Your task to perform on an android device: Open Chrome and go to settings Image 0: 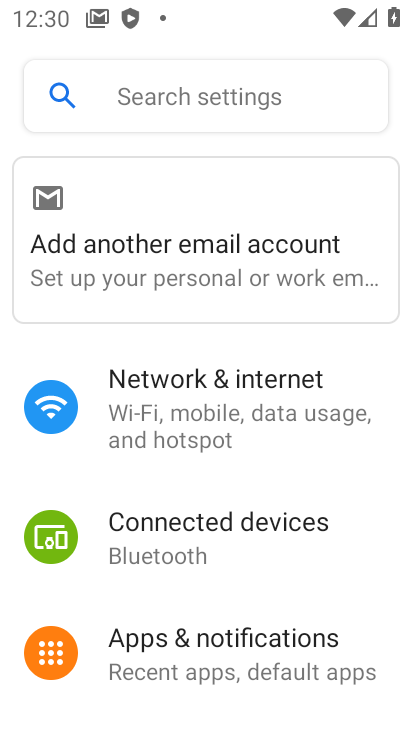
Step 0: press home button
Your task to perform on an android device: Open Chrome and go to settings Image 1: 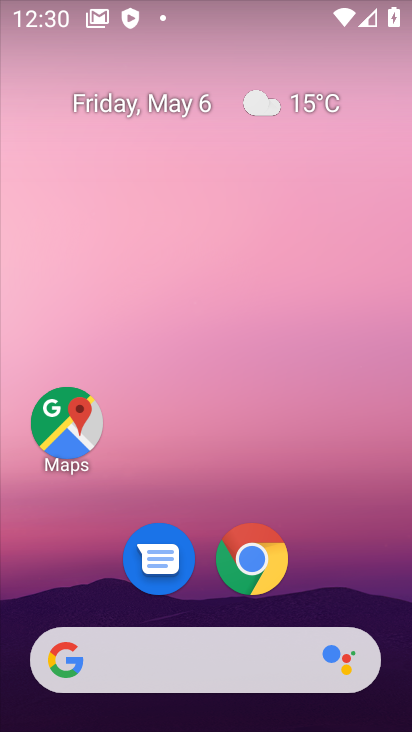
Step 1: click (259, 552)
Your task to perform on an android device: Open Chrome and go to settings Image 2: 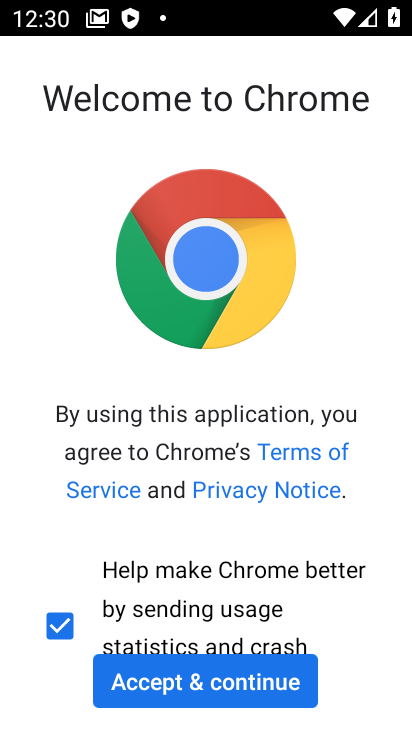
Step 2: click (151, 677)
Your task to perform on an android device: Open Chrome and go to settings Image 3: 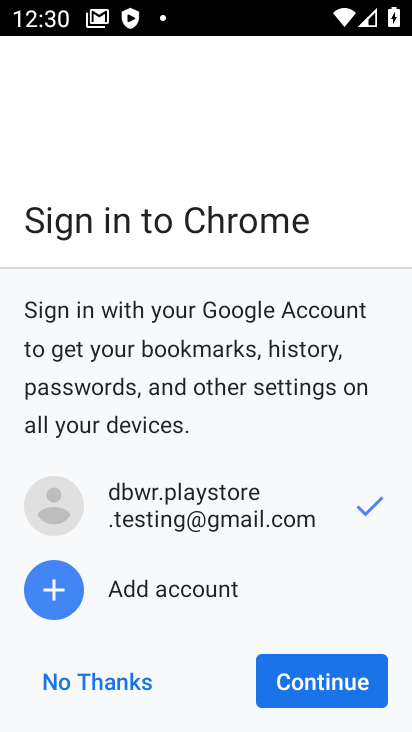
Step 3: click (327, 695)
Your task to perform on an android device: Open Chrome and go to settings Image 4: 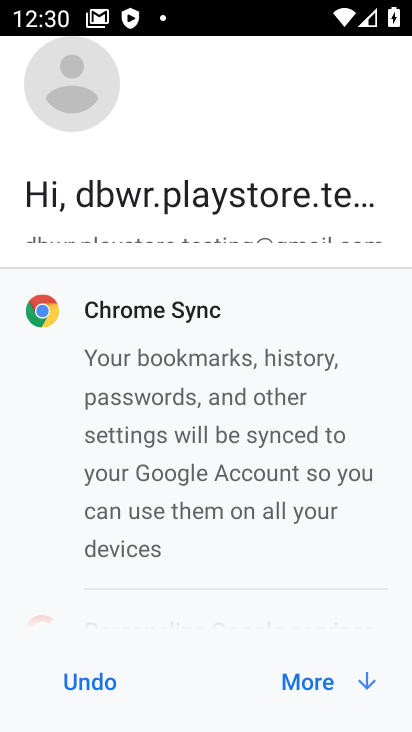
Step 4: click (334, 688)
Your task to perform on an android device: Open Chrome and go to settings Image 5: 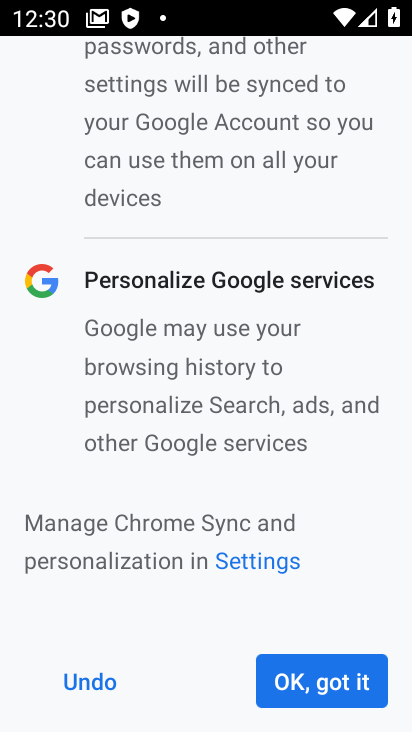
Step 5: click (334, 685)
Your task to perform on an android device: Open Chrome and go to settings Image 6: 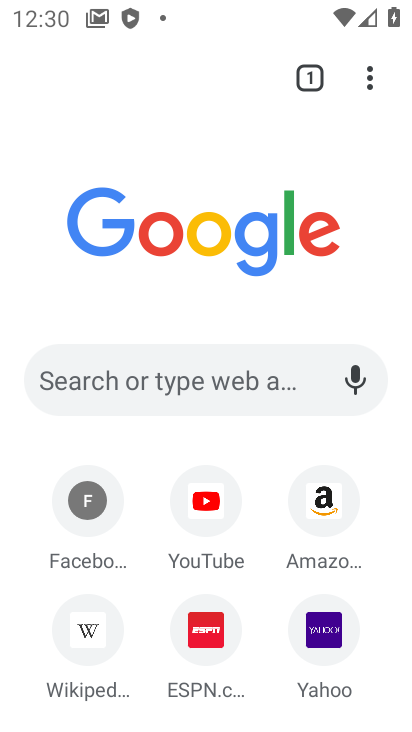
Step 6: click (373, 81)
Your task to perform on an android device: Open Chrome and go to settings Image 7: 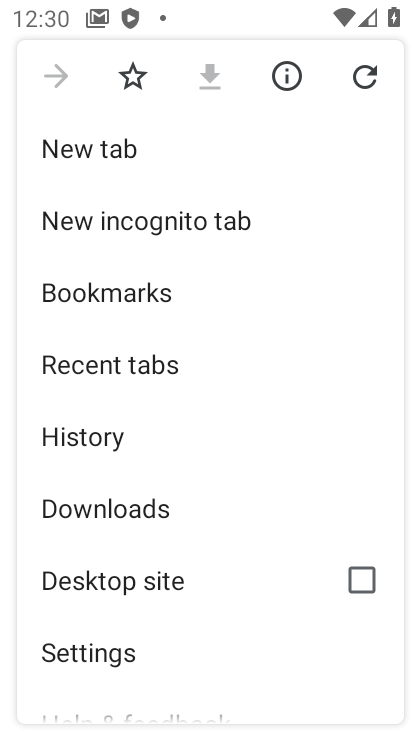
Step 7: click (86, 632)
Your task to perform on an android device: Open Chrome and go to settings Image 8: 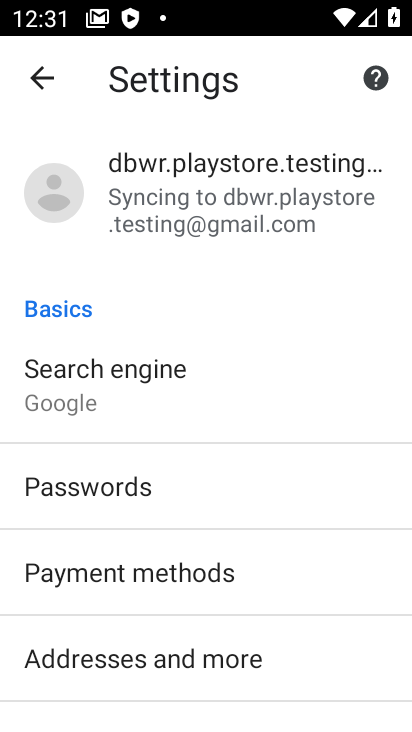
Step 8: task complete